Your task to perform on an android device: turn off smart reply in the gmail app Image 0: 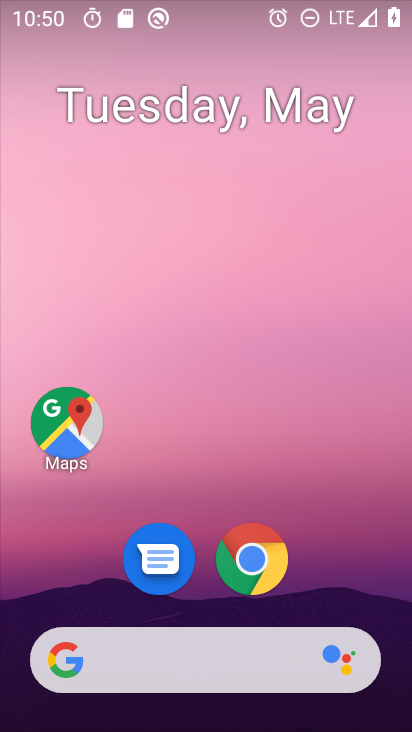
Step 0: drag from (397, 644) to (306, 101)
Your task to perform on an android device: turn off smart reply in the gmail app Image 1: 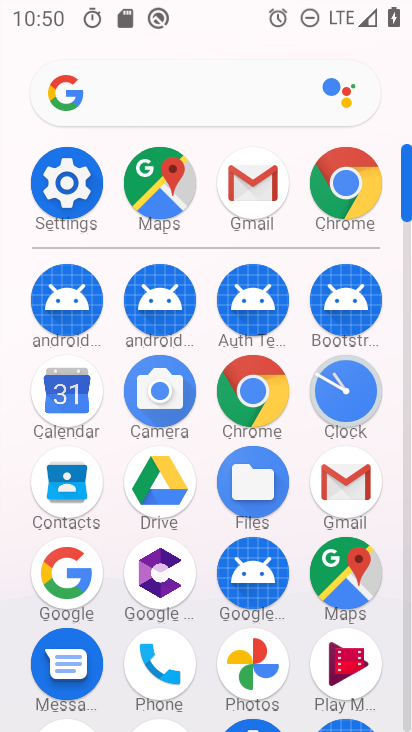
Step 1: click (349, 504)
Your task to perform on an android device: turn off smart reply in the gmail app Image 2: 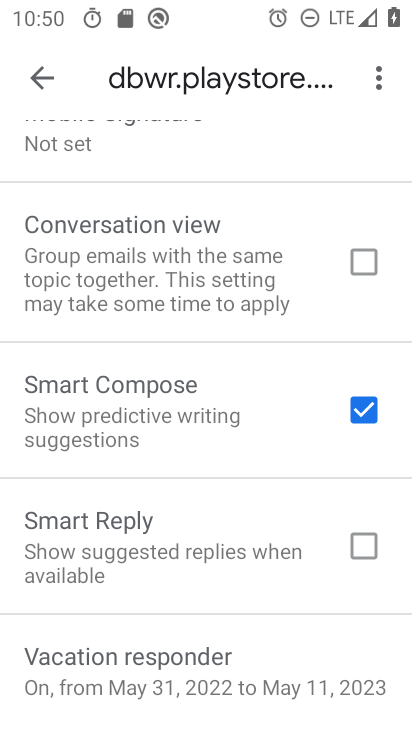
Step 2: task complete